Your task to perform on an android device: open a bookmark in the chrome app Image 0: 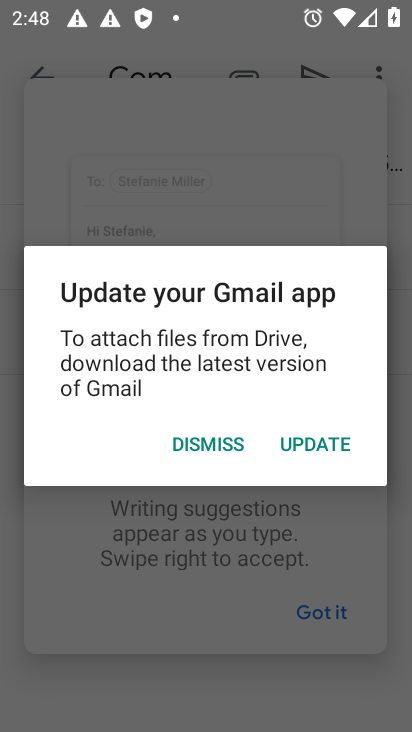
Step 0: press home button
Your task to perform on an android device: open a bookmark in the chrome app Image 1: 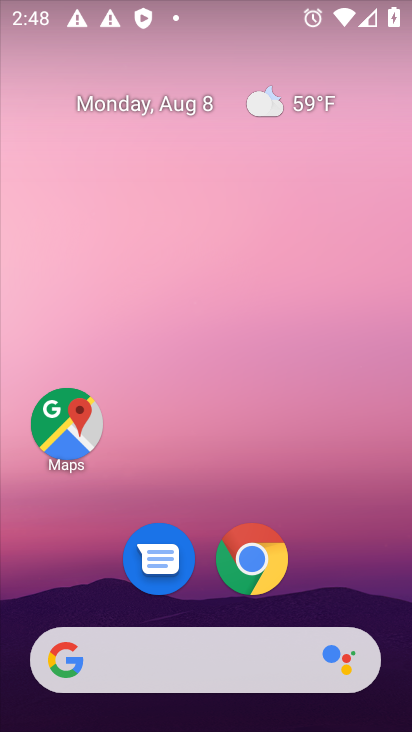
Step 1: click (254, 558)
Your task to perform on an android device: open a bookmark in the chrome app Image 2: 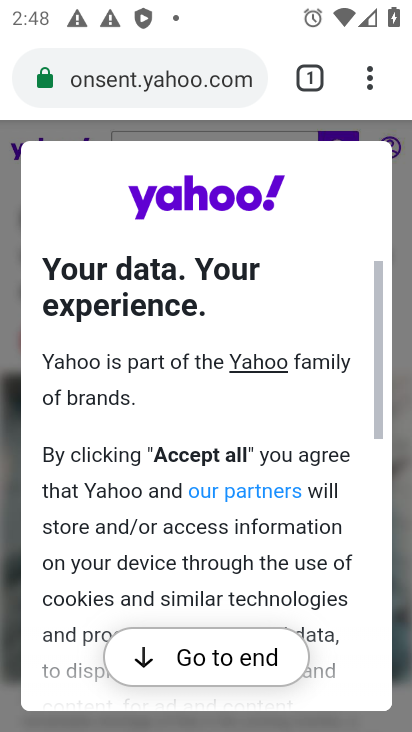
Step 2: click (374, 84)
Your task to perform on an android device: open a bookmark in the chrome app Image 3: 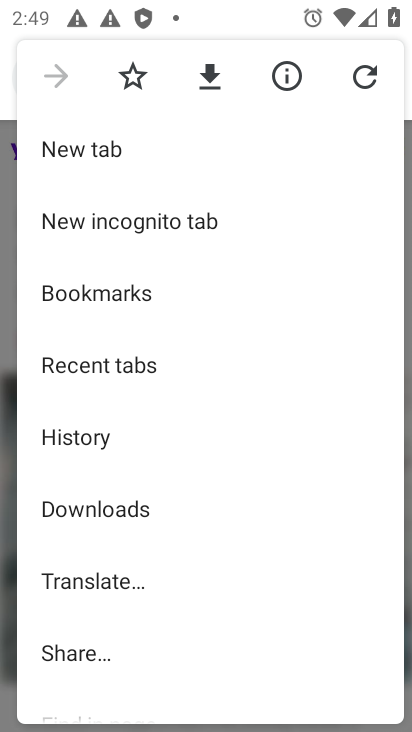
Step 3: click (143, 299)
Your task to perform on an android device: open a bookmark in the chrome app Image 4: 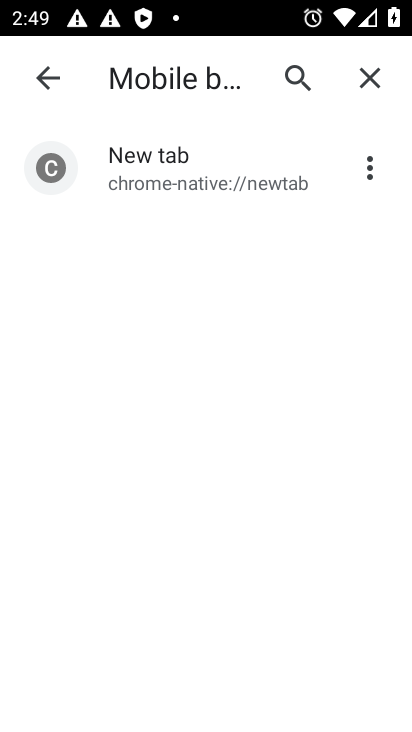
Step 4: task complete